Your task to perform on an android device: Open Chrome and go to settings Image 0: 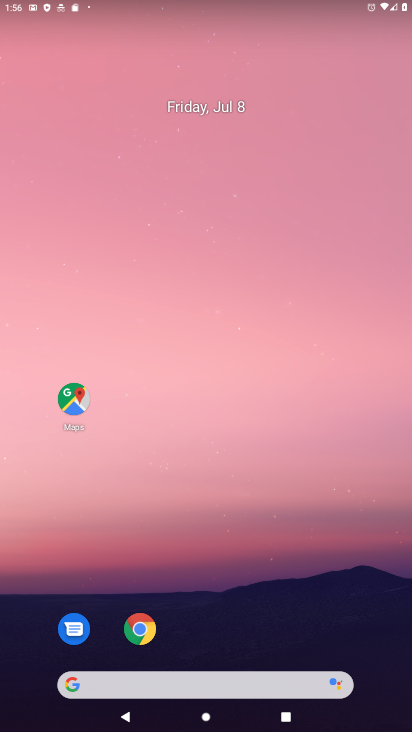
Step 0: drag from (187, 670) to (288, 159)
Your task to perform on an android device: Open Chrome and go to settings Image 1: 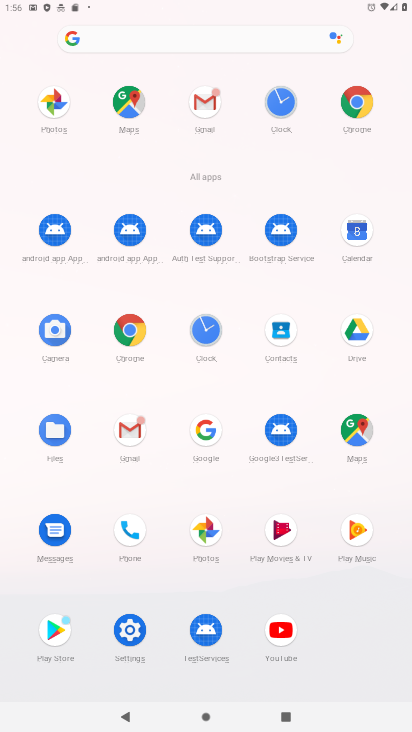
Step 1: click (143, 339)
Your task to perform on an android device: Open Chrome and go to settings Image 2: 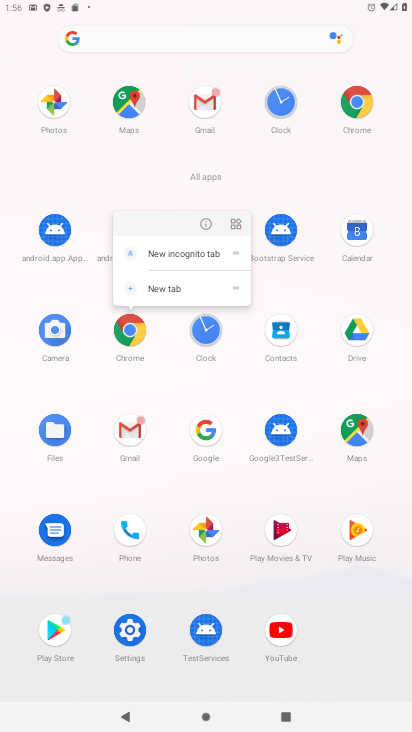
Step 2: click (140, 339)
Your task to perform on an android device: Open Chrome and go to settings Image 3: 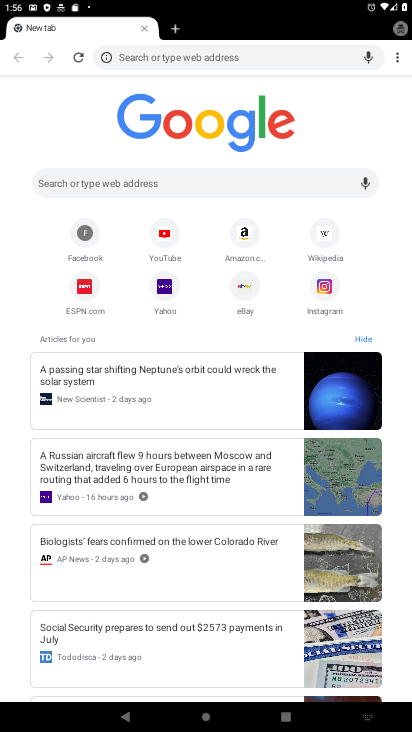
Step 3: task complete